Your task to perform on an android device: Add macbook air to the cart on target.com, then select checkout. Image 0: 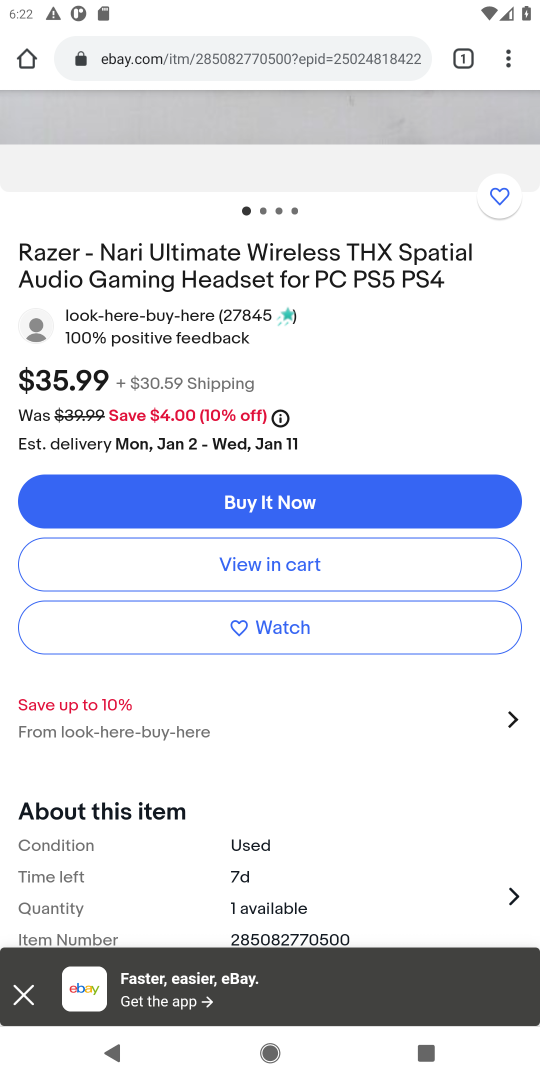
Step 0: click (218, 59)
Your task to perform on an android device: Add macbook air to the cart on target.com, then select checkout. Image 1: 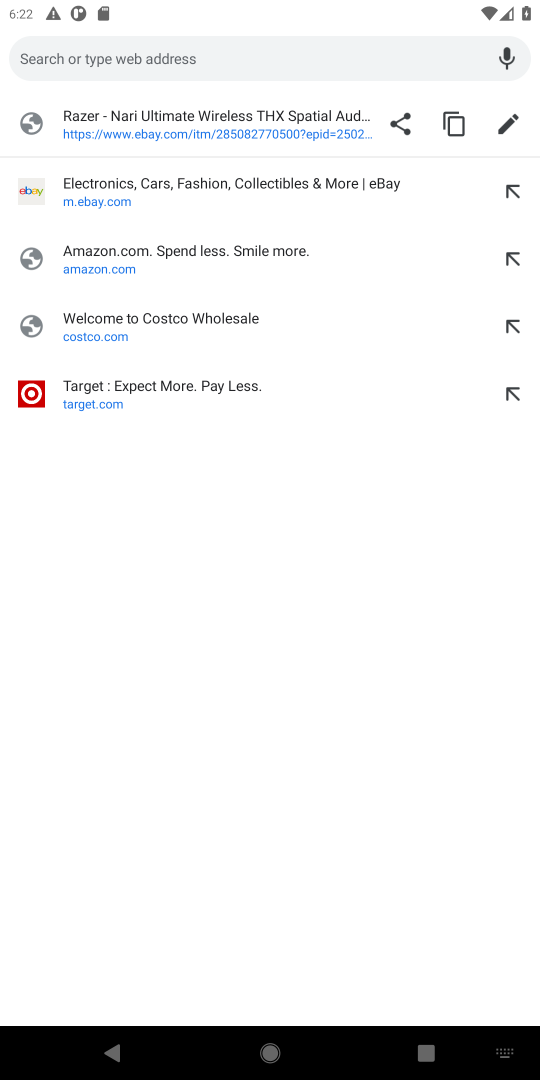
Step 1: click (71, 417)
Your task to perform on an android device: Add macbook air to the cart on target.com, then select checkout. Image 2: 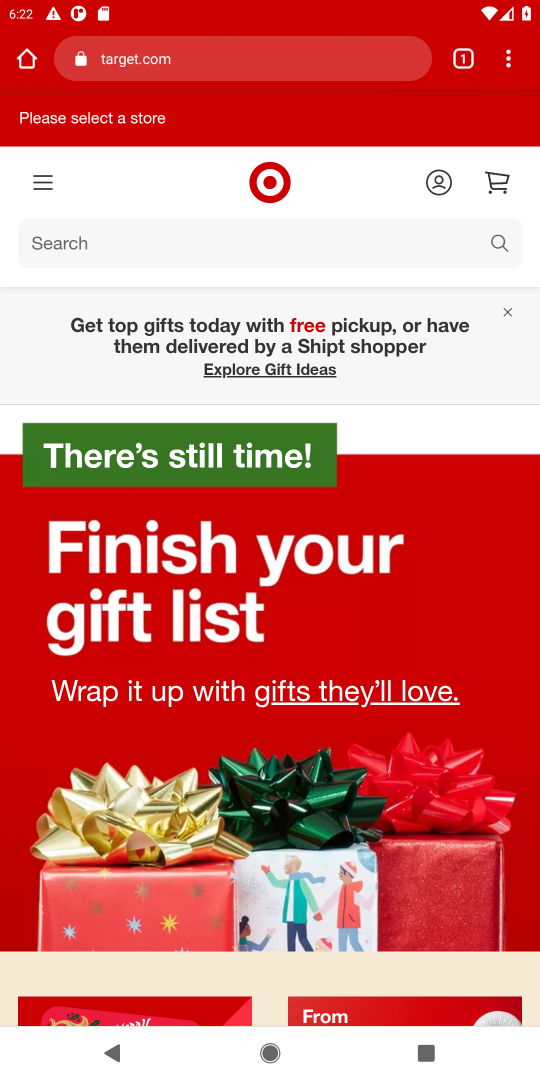
Step 2: click (86, 247)
Your task to perform on an android device: Add macbook air to the cart on target.com, then select checkout. Image 3: 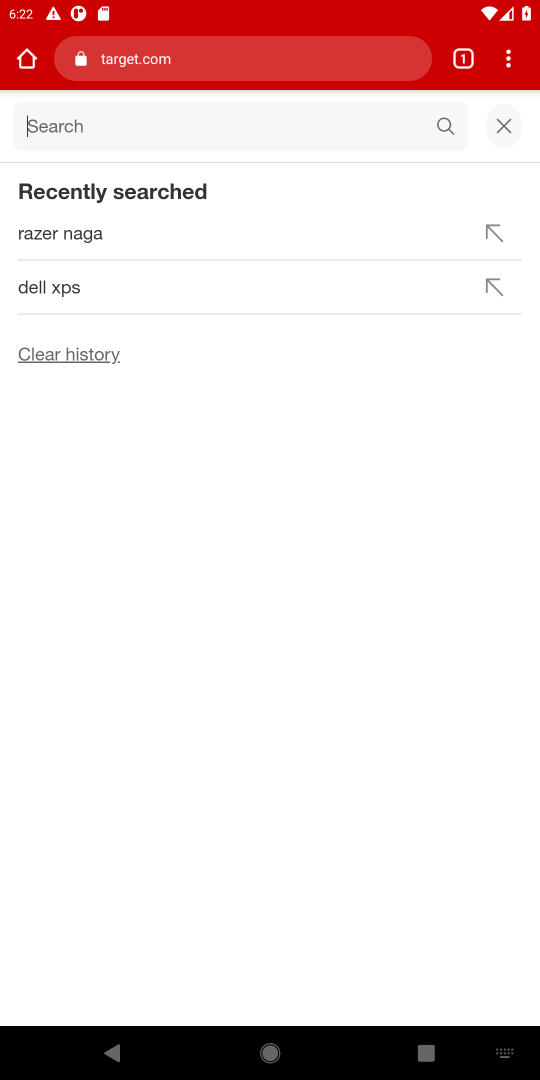
Step 3: type "macbook air"
Your task to perform on an android device: Add macbook air to the cart on target.com, then select checkout. Image 4: 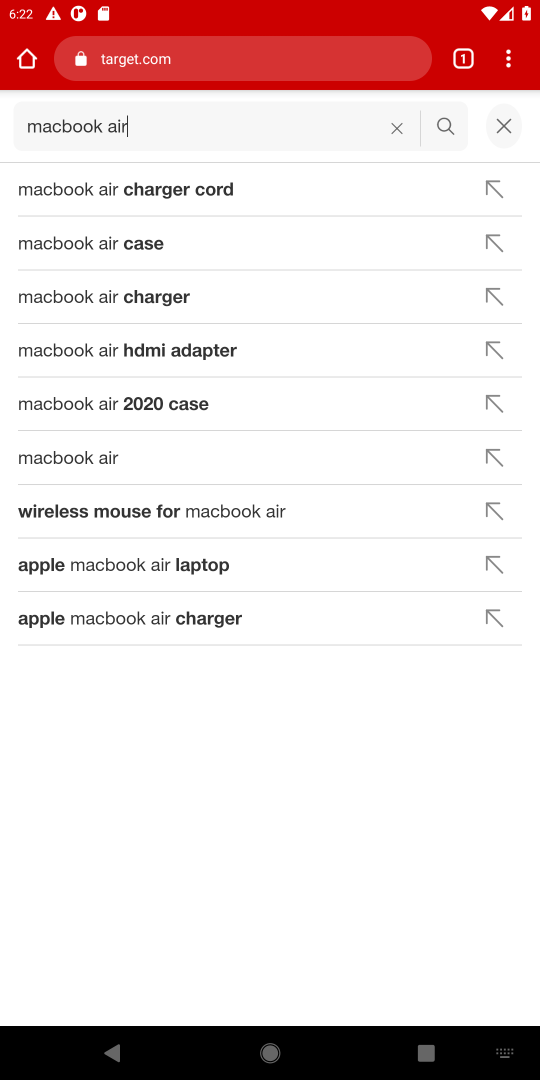
Step 4: click (103, 459)
Your task to perform on an android device: Add macbook air to the cart on target.com, then select checkout. Image 5: 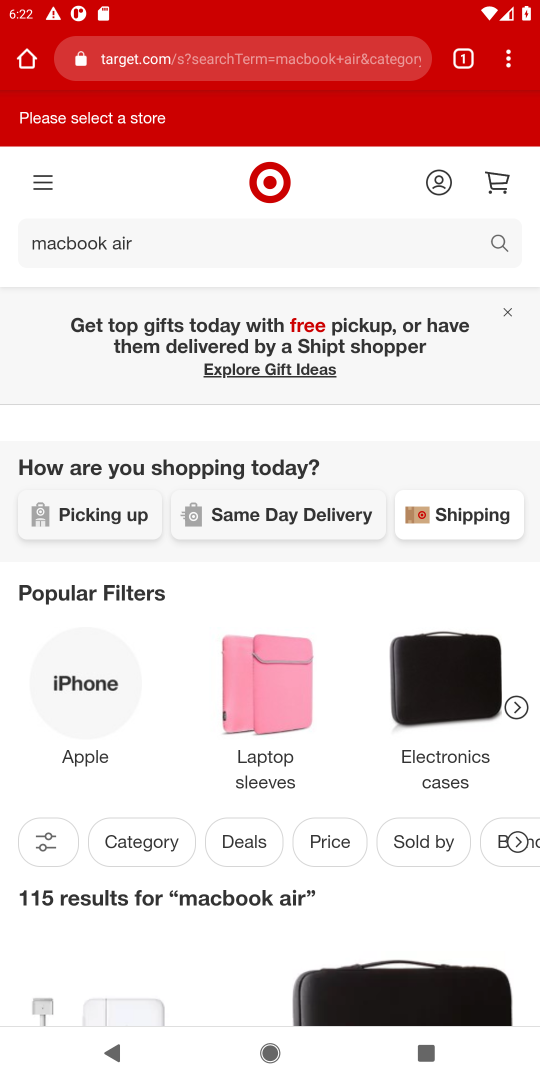
Step 5: drag from (234, 705) to (246, 302)
Your task to perform on an android device: Add macbook air to the cart on target.com, then select checkout. Image 6: 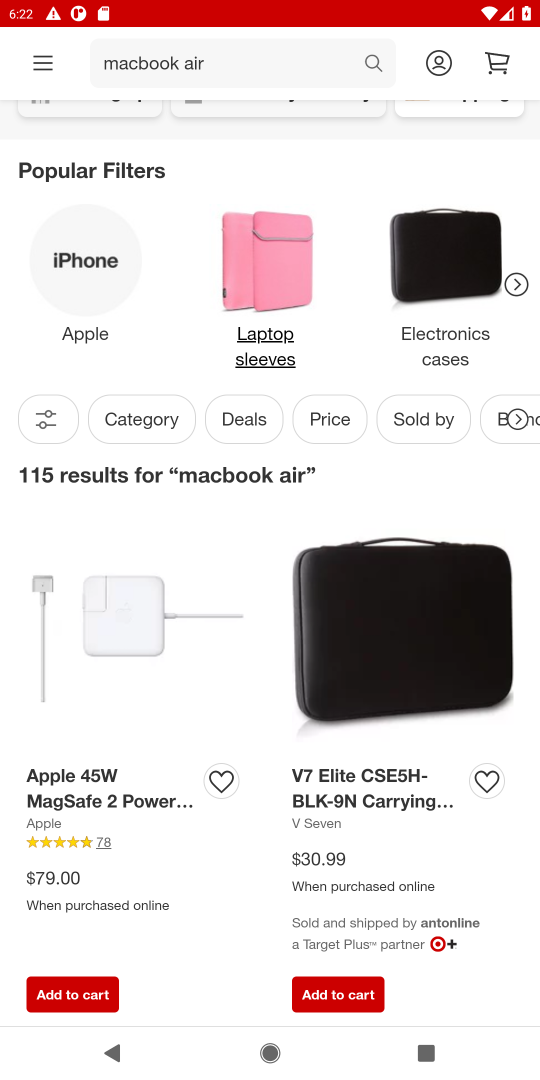
Step 6: drag from (198, 790) to (212, 566)
Your task to perform on an android device: Add macbook air to the cart on target.com, then select checkout. Image 7: 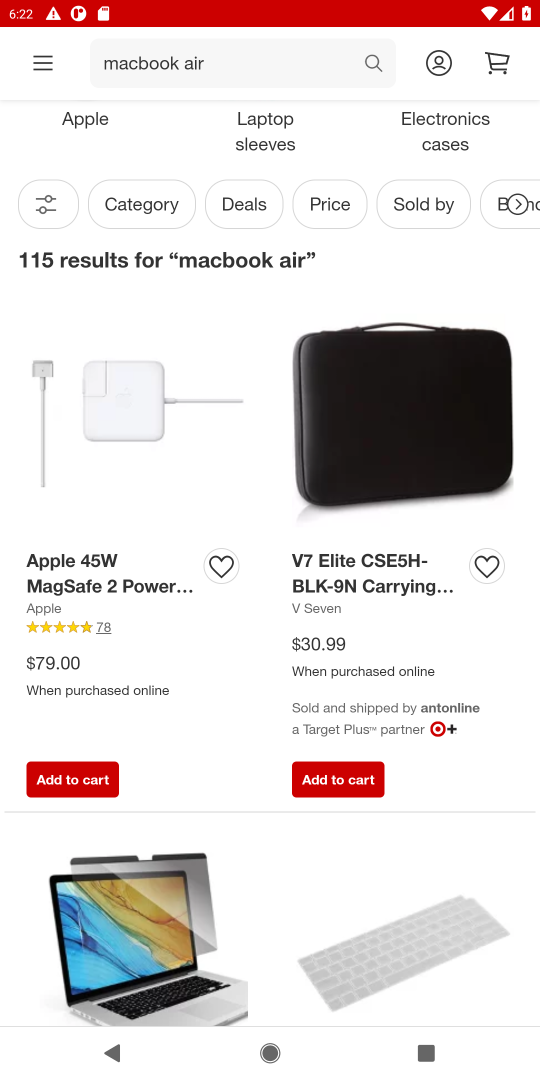
Step 7: click (81, 585)
Your task to perform on an android device: Add macbook air to the cart on target.com, then select checkout. Image 8: 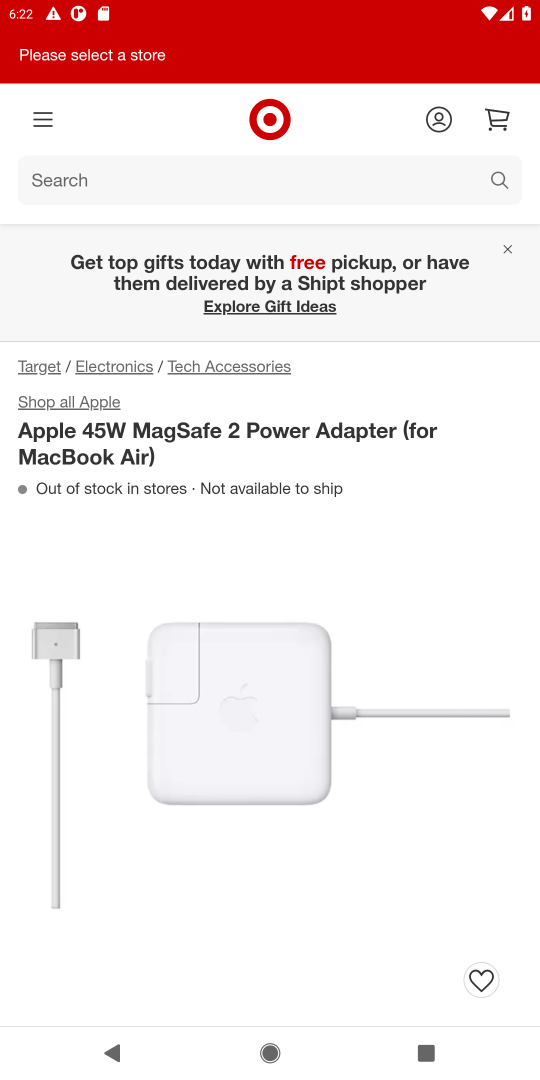
Step 8: drag from (182, 824) to (196, 289)
Your task to perform on an android device: Add macbook air to the cart on target.com, then select checkout. Image 9: 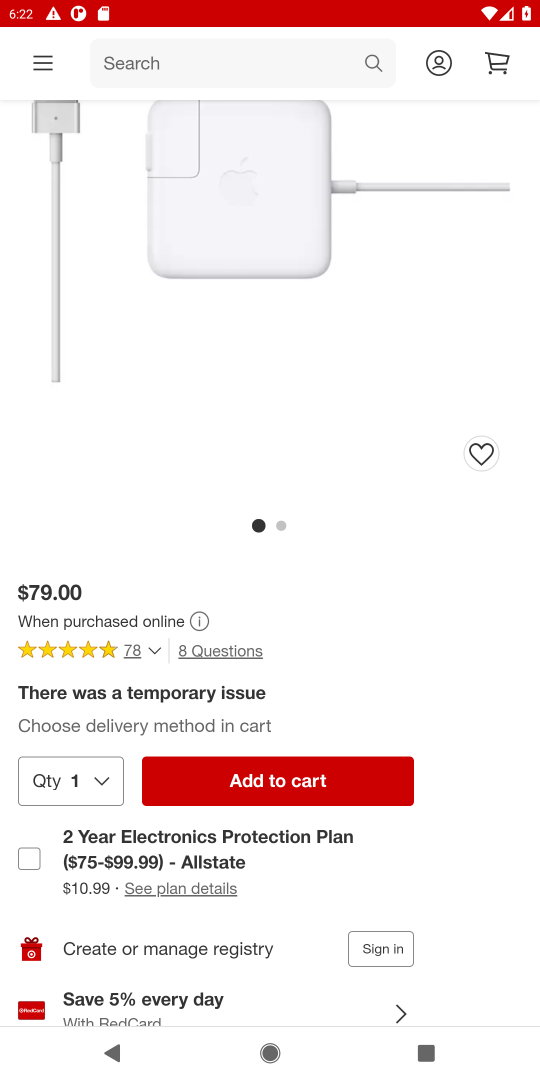
Step 9: click (268, 790)
Your task to perform on an android device: Add macbook air to the cart on target.com, then select checkout. Image 10: 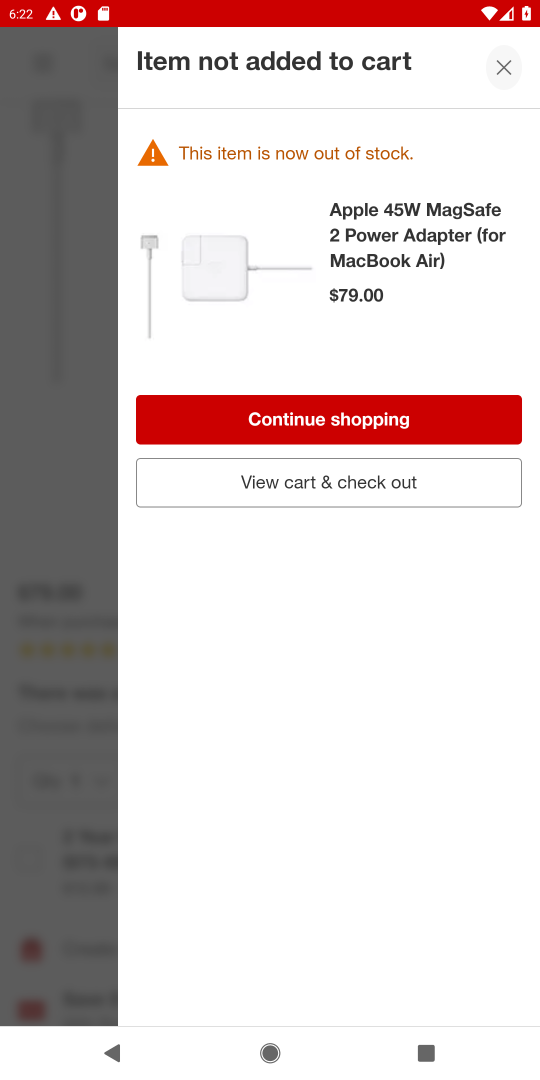
Step 10: click (292, 490)
Your task to perform on an android device: Add macbook air to the cart on target.com, then select checkout. Image 11: 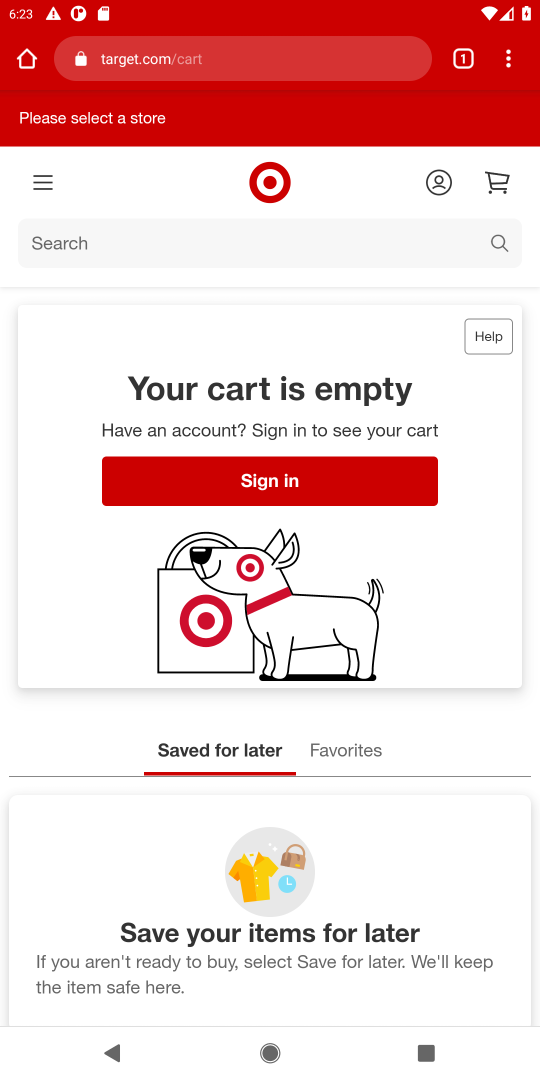
Step 11: press back button
Your task to perform on an android device: Add macbook air to the cart on target.com, then select checkout. Image 12: 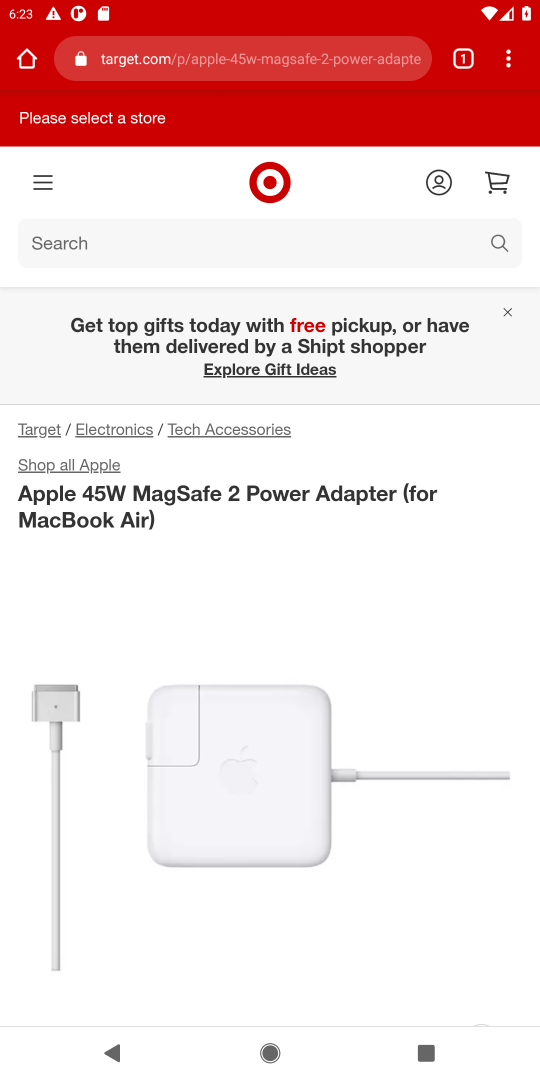
Step 12: press back button
Your task to perform on an android device: Add macbook air to the cart on target.com, then select checkout. Image 13: 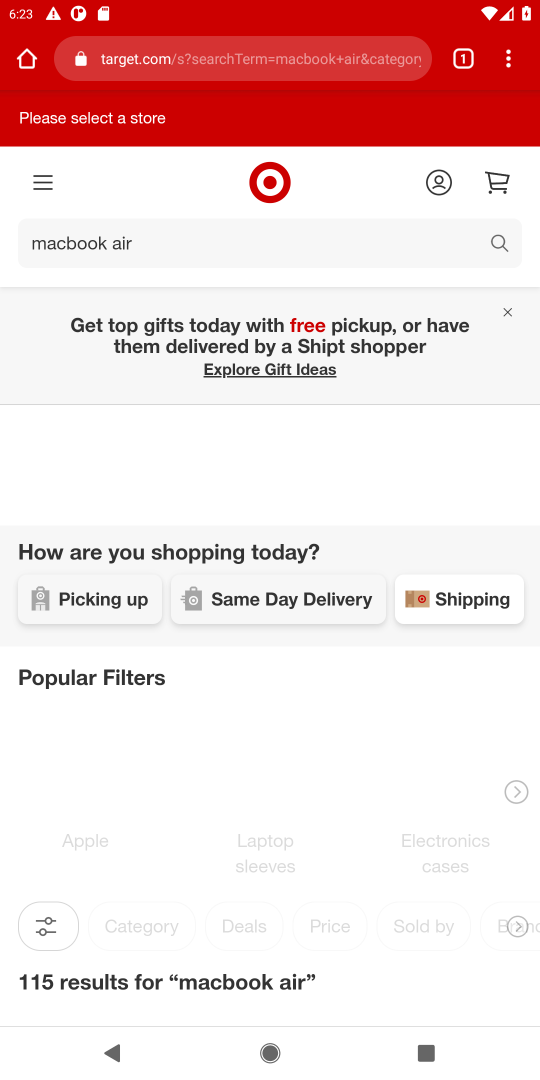
Step 13: drag from (272, 803) to (271, 308)
Your task to perform on an android device: Add macbook air to the cart on target.com, then select checkout. Image 14: 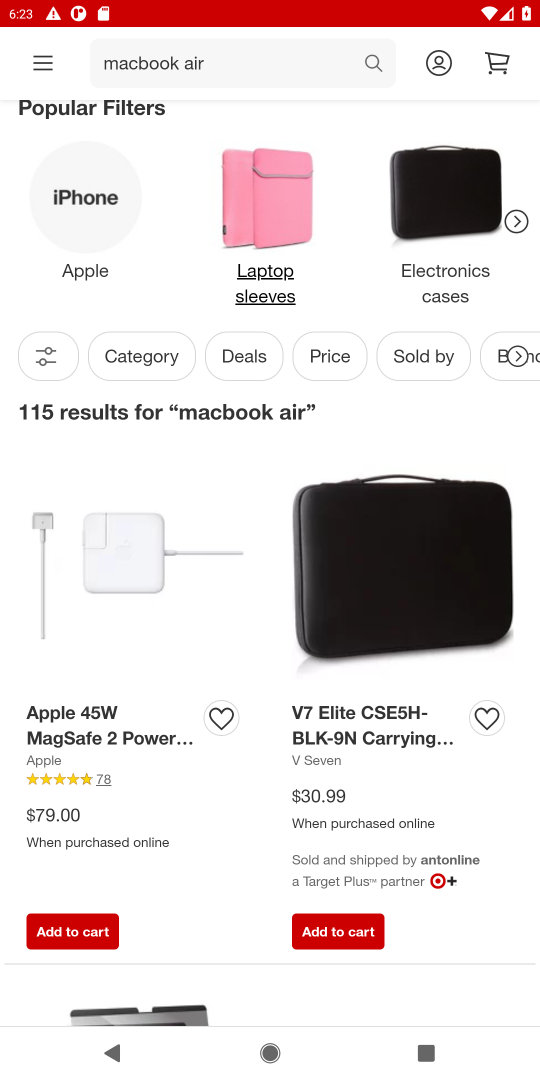
Step 14: drag from (203, 757) to (231, 313)
Your task to perform on an android device: Add macbook air to the cart on target.com, then select checkout. Image 15: 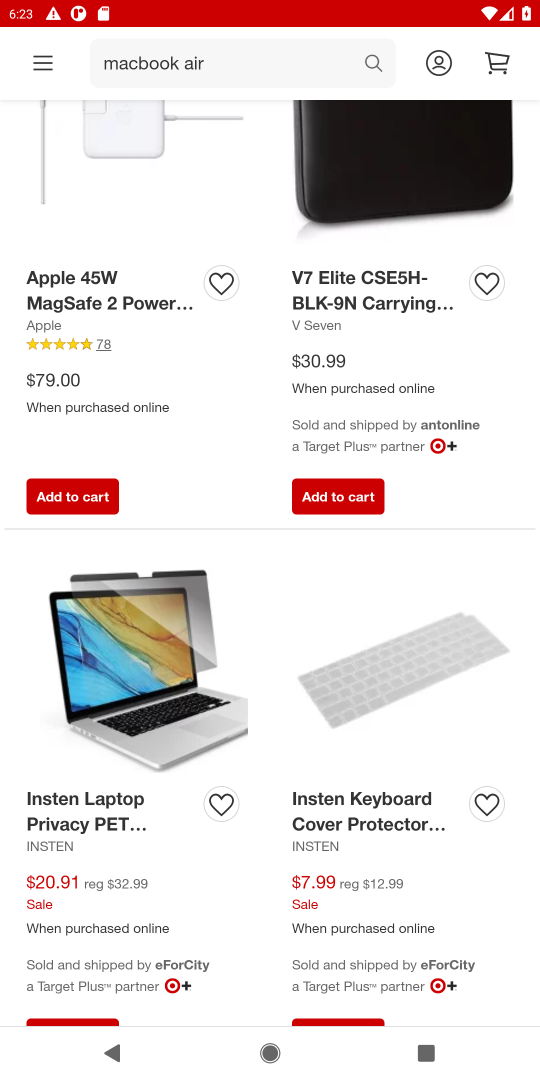
Step 15: click (103, 814)
Your task to perform on an android device: Add macbook air to the cart on target.com, then select checkout. Image 16: 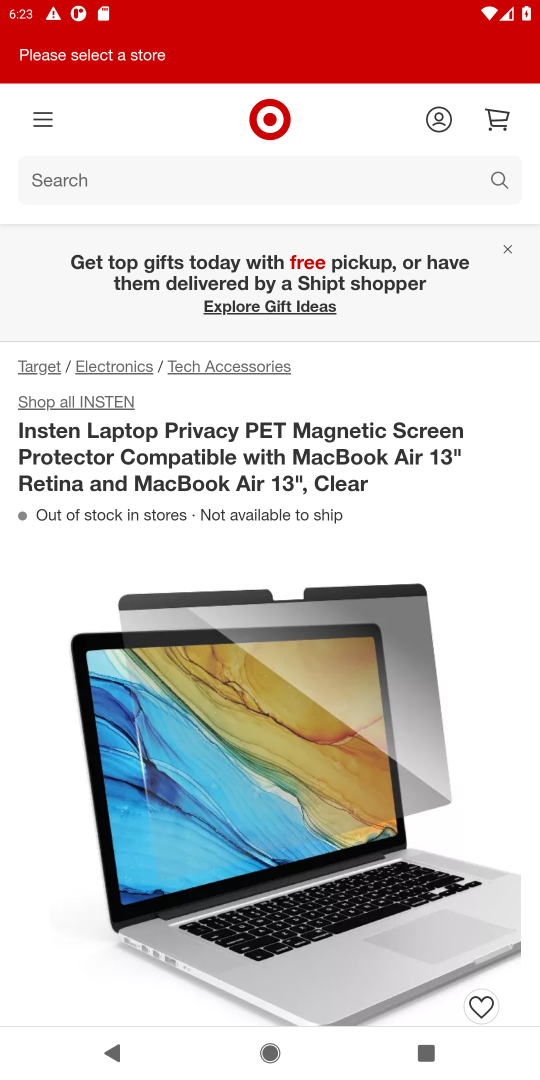
Step 16: drag from (221, 826) to (279, 290)
Your task to perform on an android device: Add macbook air to the cart on target.com, then select checkout. Image 17: 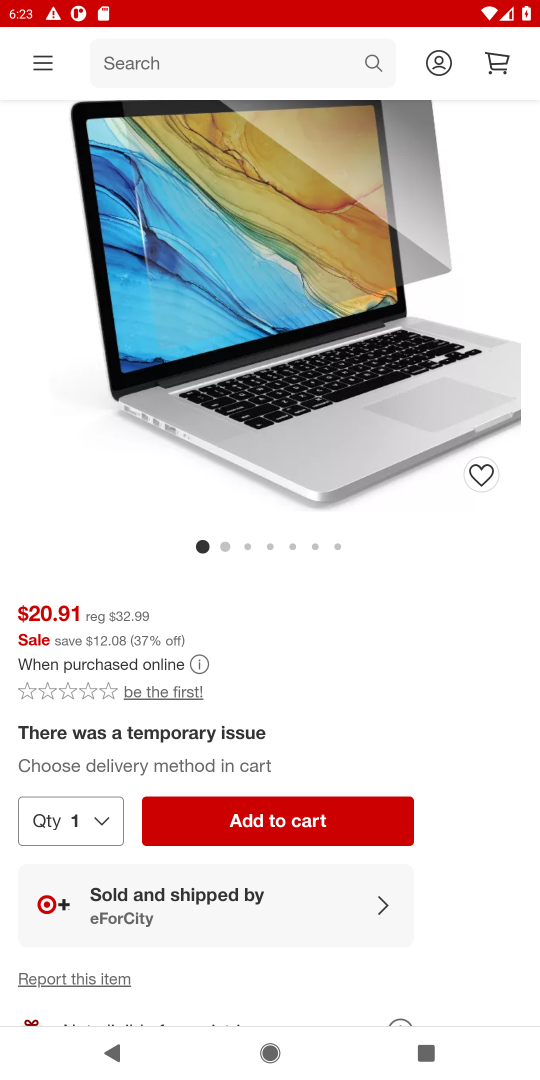
Step 17: click (280, 834)
Your task to perform on an android device: Add macbook air to the cart on target.com, then select checkout. Image 18: 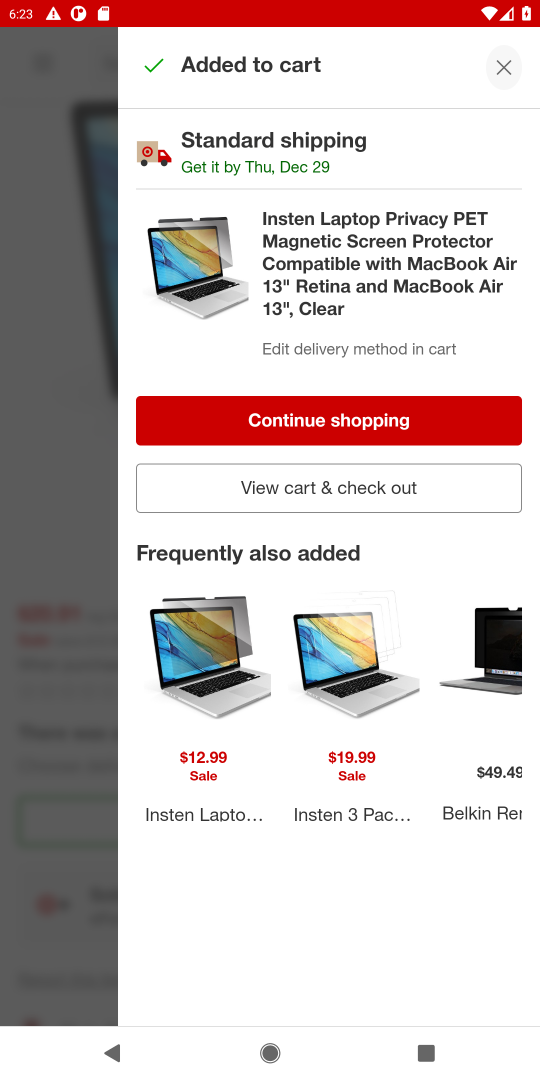
Step 18: click (306, 496)
Your task to perform on an android device: Add macbook air to the cart on target.com, then select checkout. Image 19: 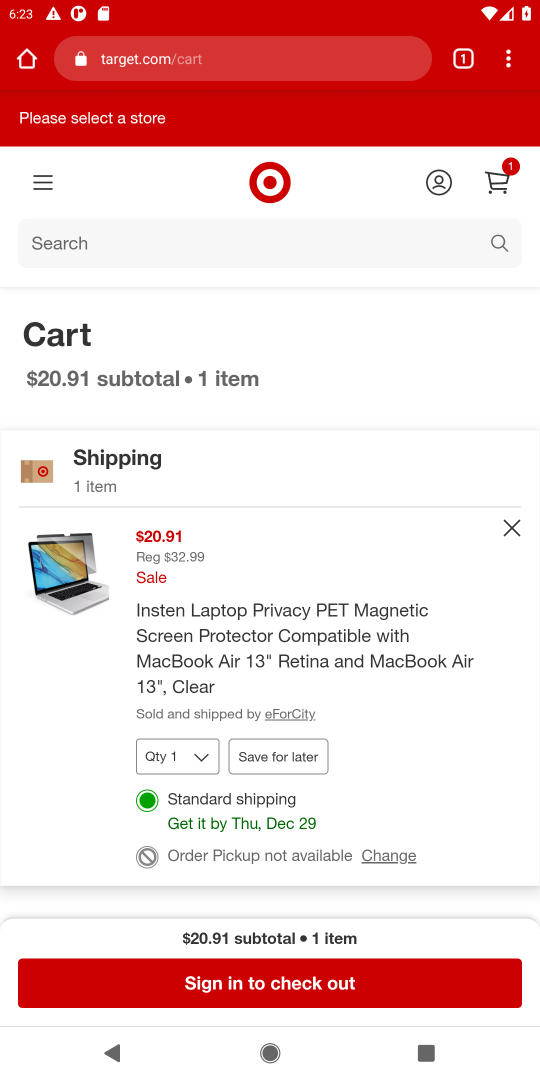
Step 19: click (279, 993)
Your task to perform on an android device: Add macbook air to the cart on target.com, then select checkout. Image 20: 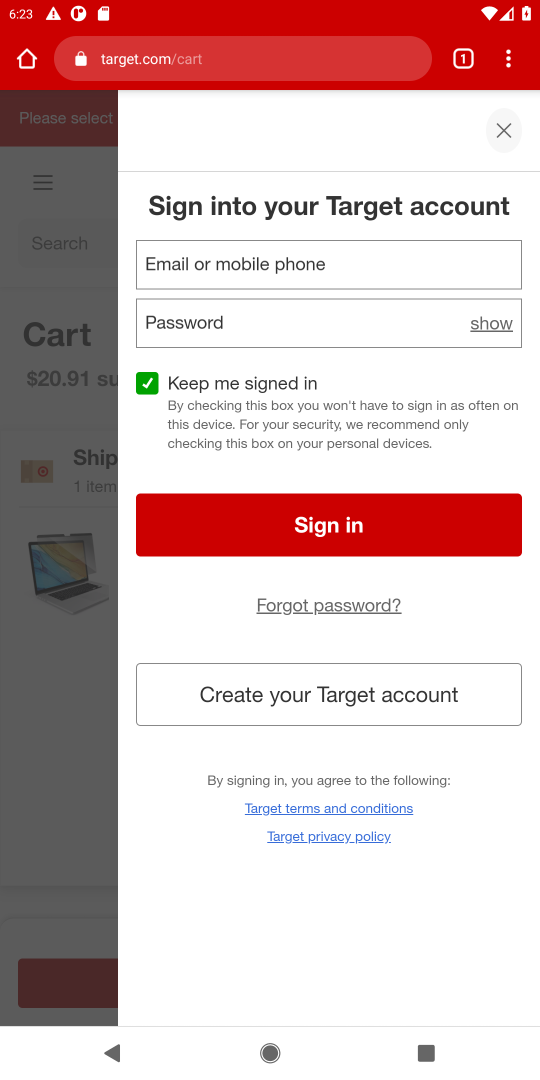
Step 20: task complete